Your task to perform on an android device: What's the weather today? Image 0: 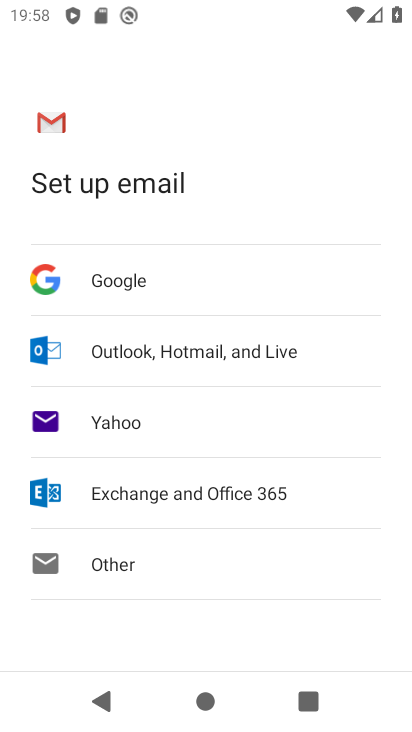
Step 0: press home button
Your task to perform on an android device: What's the weather today? Image 1: 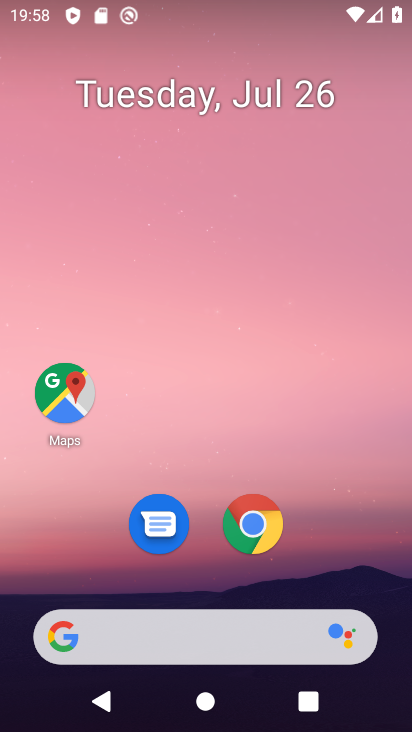
Step 1: click (166, 629)
Your task to perform on an android device: What's the weather today? Image 2: 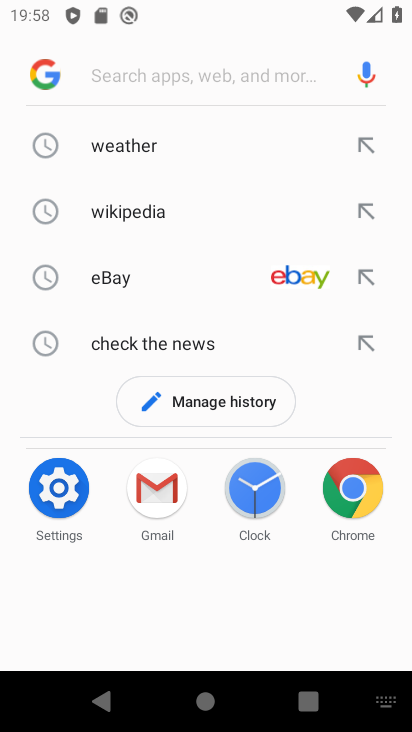
Step 2: click (138, 150)
Your task to perform on an android device: What's the weather today? Image 3: 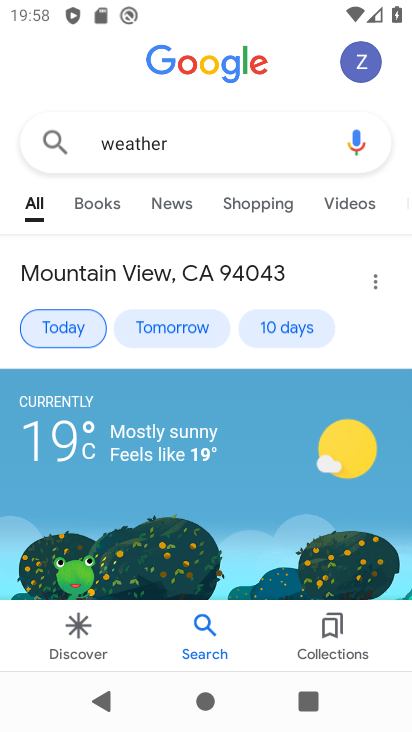
Step 3: task complete